Your task to perform on an android device: Open sound settings Image 0: 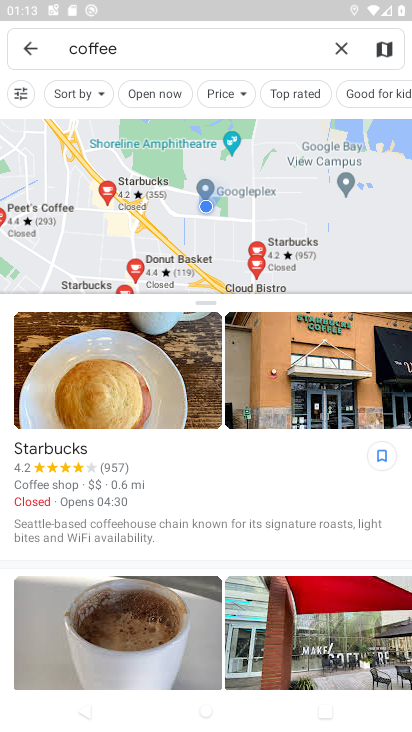
Step 0: press home button
Your task to perform on an android device: Open sound settings Image 1: 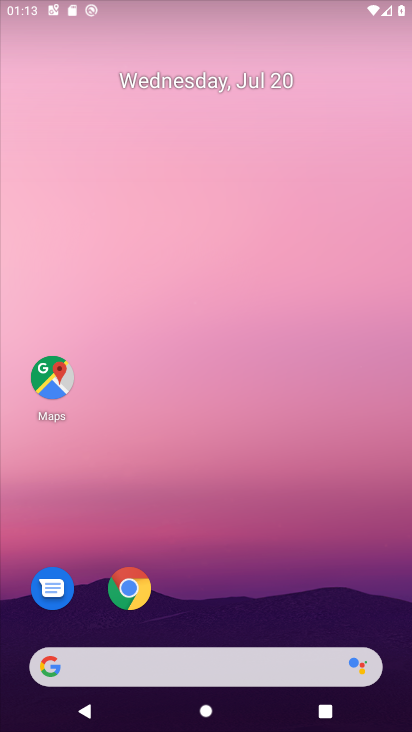
Step 1: drag from (282, 619) to (294, 197)
Your task to perform on an android device: Open sound settings Image 2: 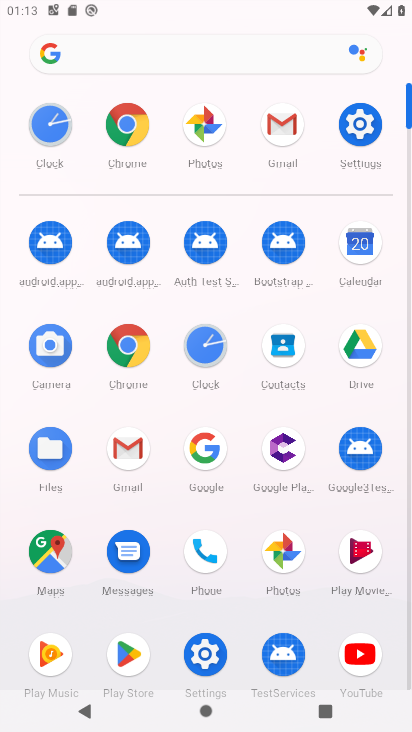
Step 2: click (362, 116)
Your task to perform on an android device: Open sound settings Image 3: 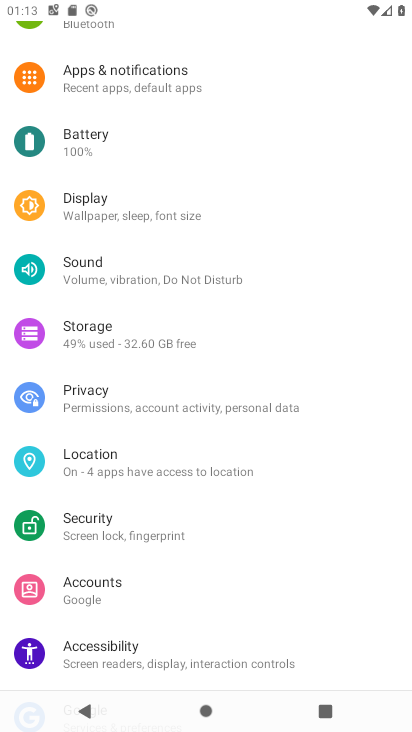
Step 3: click (127, 278)
Your task to perform on an android device: Open sound settings Image 4: 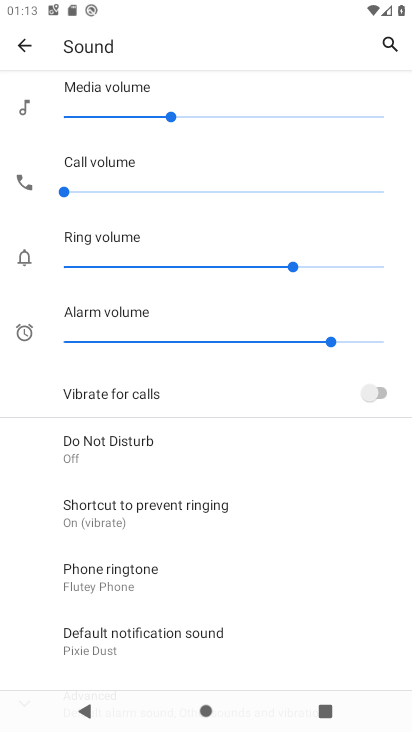
Step 4: task complete